Your task to perform on an android device: see creations saved in the google photos Image 0: 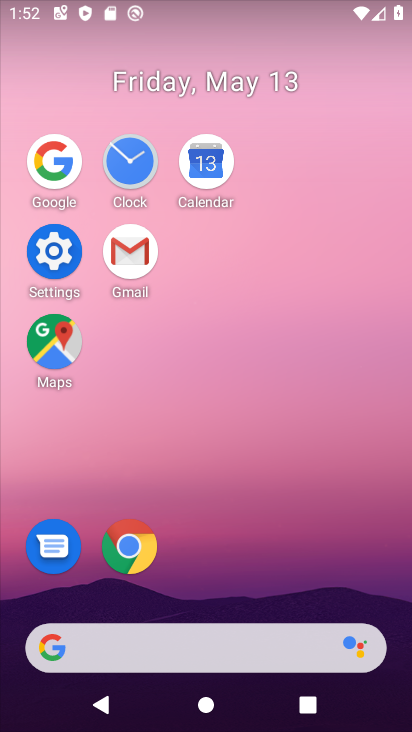
Step 0: drag from (280, 536) to (271, 102)
Your task to perform on an android device: see creations saved in the google photos Image 1: 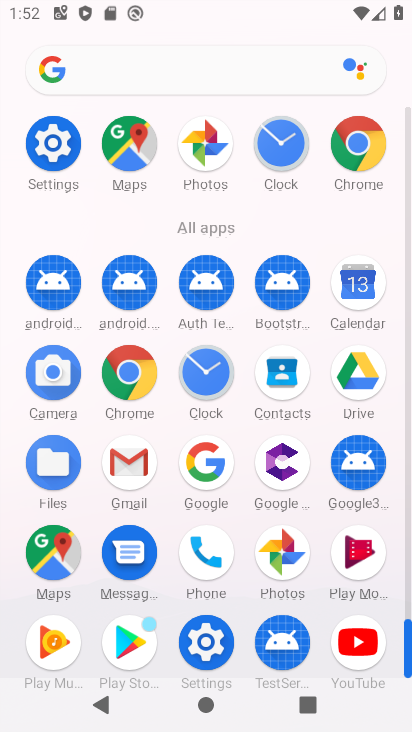
Step 1: drag from (206, 148) to (198, 275)
Your task to perform on an android device: see creations saved in the google photos Image 2: 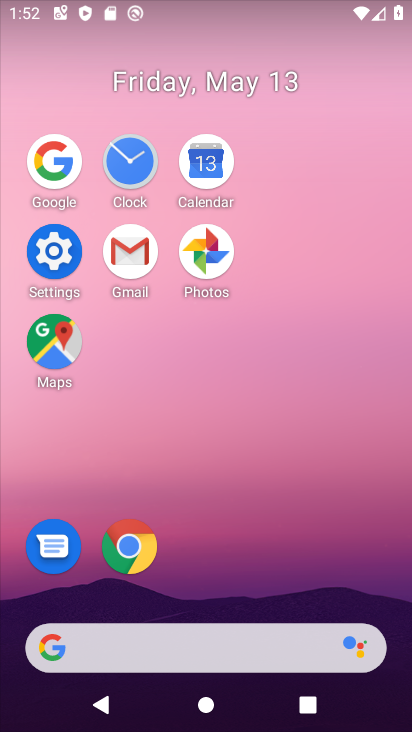
Step 2: click (202, 265)
Your task to perform on an android device: see creations saved in the google photos Image 3: 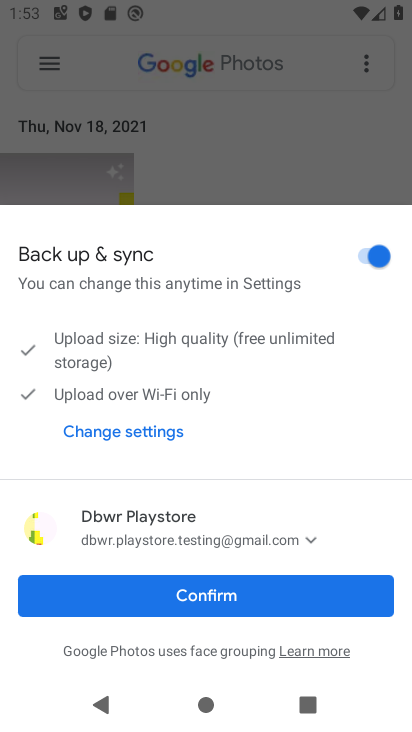
Step 3: click (222, 585)
Your task to perform on an android device: see creations saved in the google photos Image 4: 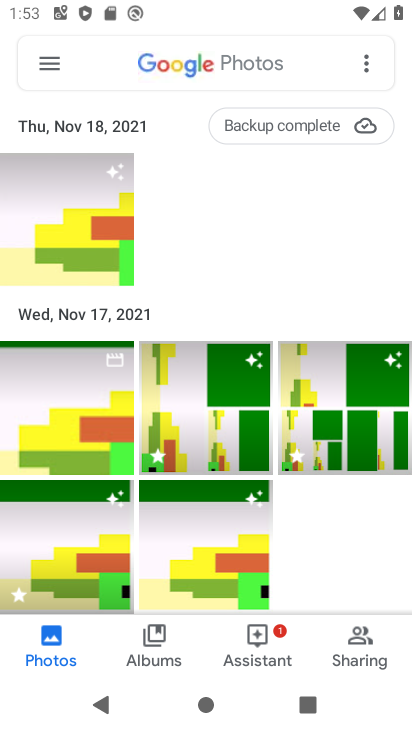
Step 4: click (193, 66)
Your task to perform on an android device: see creations saved in the google photos Image 5: 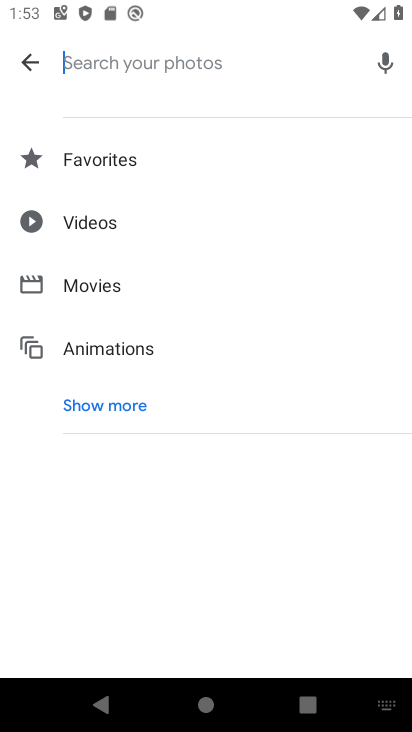
Step 5: click (135, 413)
Your task to perform on an android device: see creations saved in the google photos Image 6: 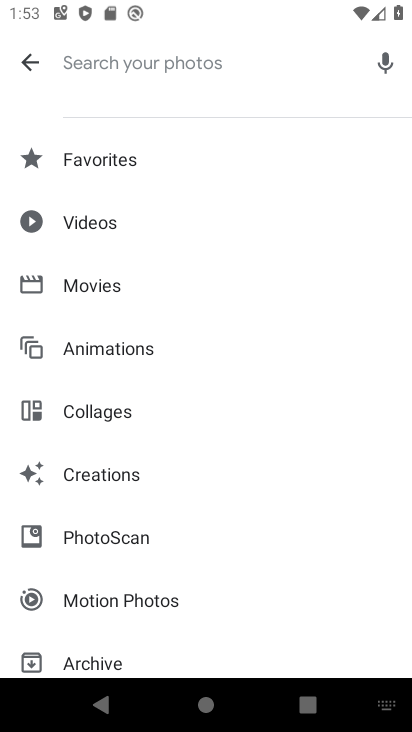
Step 6: click (153, 468)
Your task to perform on an android device: see creations saved in the google photos Image 7: 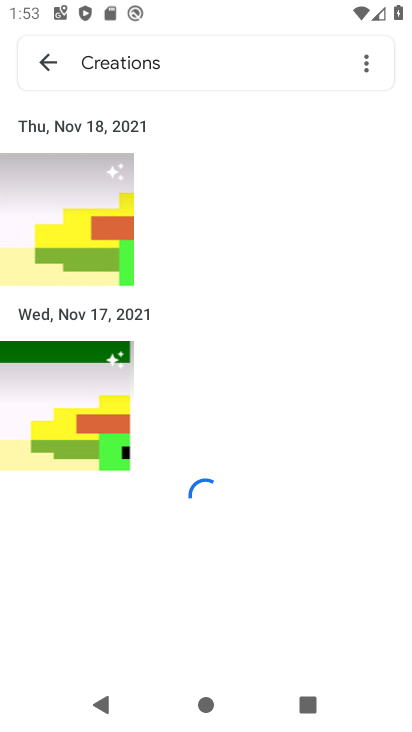
Step 7: task complete